Your task to perform on an android device: When is my next meeting? Image 0: 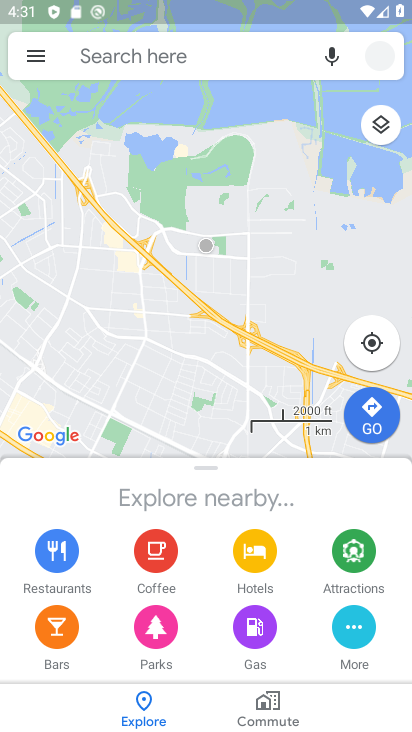
Step 0: press home button
Your task to perform on an android device: When is my next meeting? Image 1: 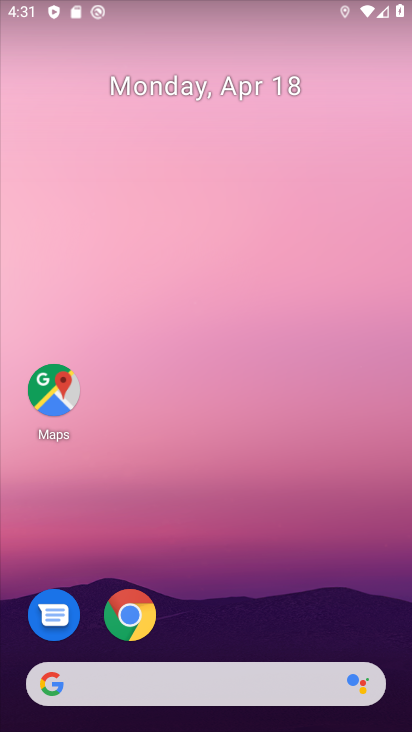
Step 1: drag from (238, 520) to (196, 84)
Your task to perform on an android device: When is my next meeting? Image 2: 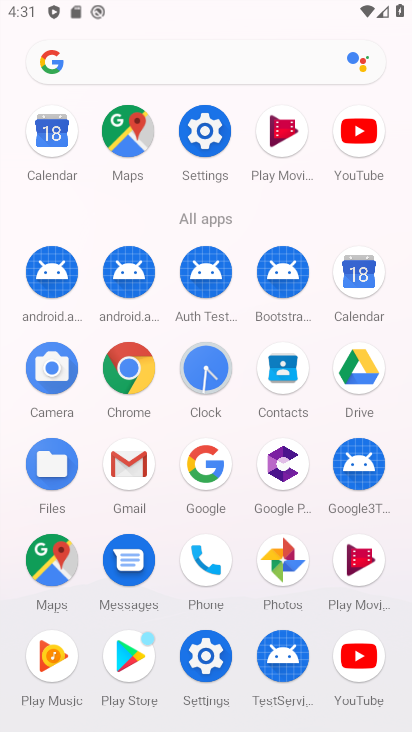
Step 2: click (361, 276)
Your task to perform on an android device: When is my next meeting? Image 3: 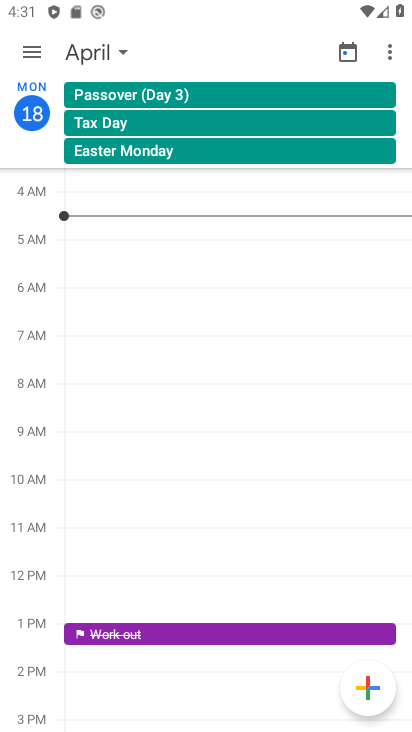
Step 3: click (40, 58)
Your task to perform on an android device: When is my next meeting? Image 4: 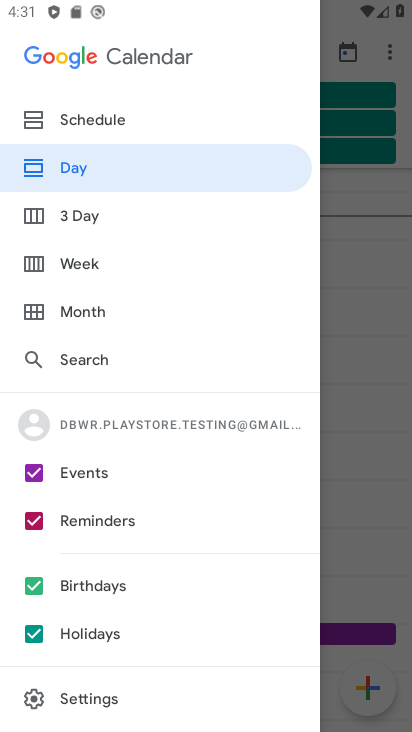
Step 4: click (99, 120)
Your task to perform on an android device: When is my next meeting? Image 5: 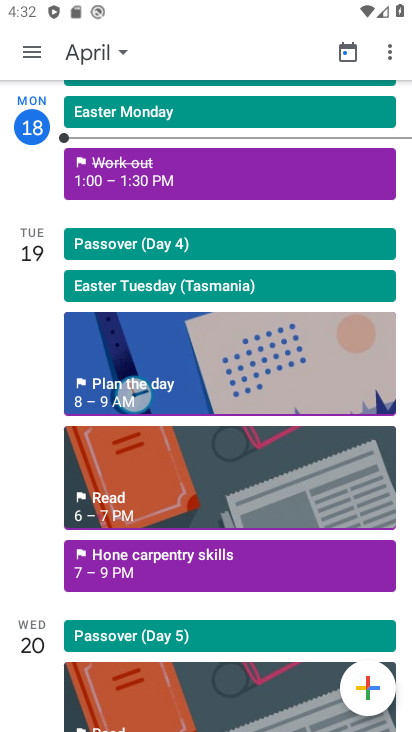
Step 5: click (164, 551)
Your task to perform on an android device: When is my next meeting? Image 6: 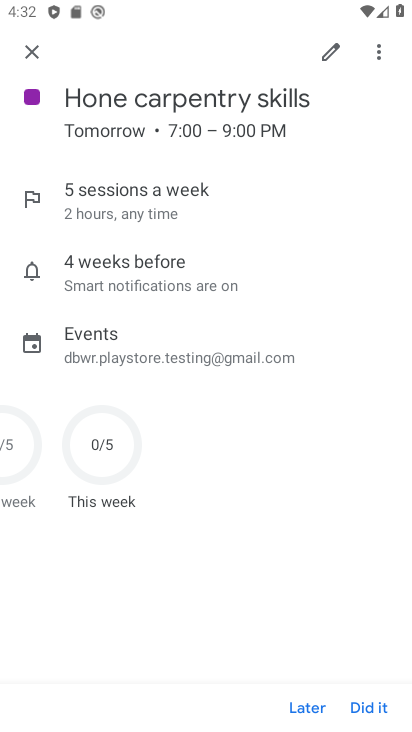
Step 6: task complete